Your task to perform on an android device: turn on data saver in the chrome app Image 0: 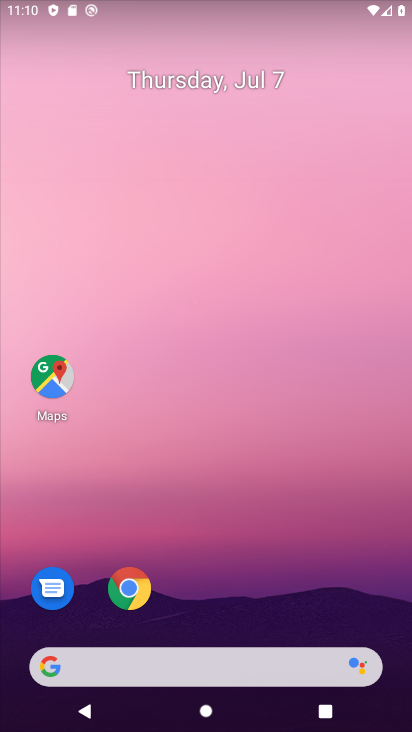
Step 0: drag from (200, 621) to (228, 124)
Your task to perform on an android device: turn on data saver in the chrome app Image 1: 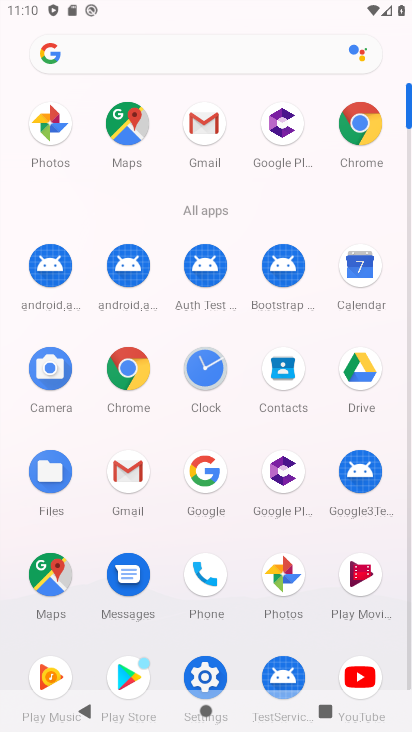
Step 1: click (360, 123)
Your task to perform on an android device: turn on data saver in the chrome app Image 2: 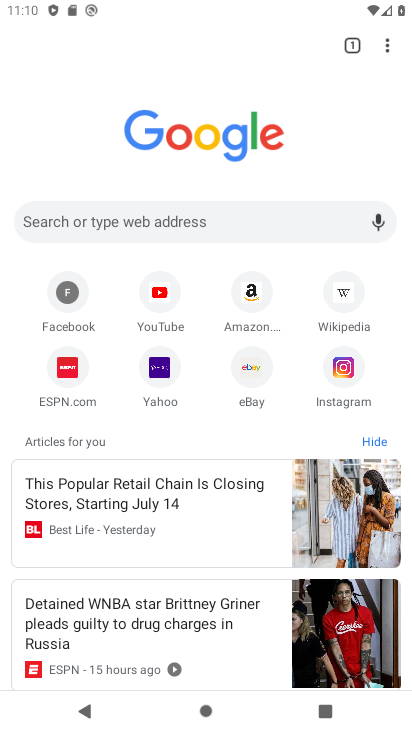
Step 2: click (383, 49)
Your task to perform on an android device: turn on data saver in the chrome app Image 3: 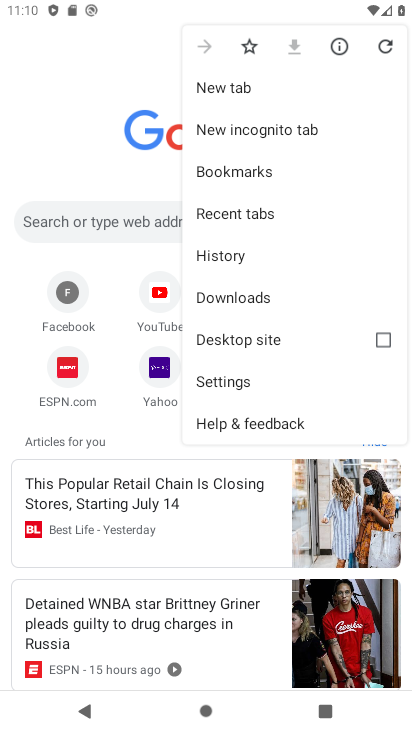
Step 3: click (241, 382)
Your task to perform on an android device: turn on data saver in the chrome app Image 4: 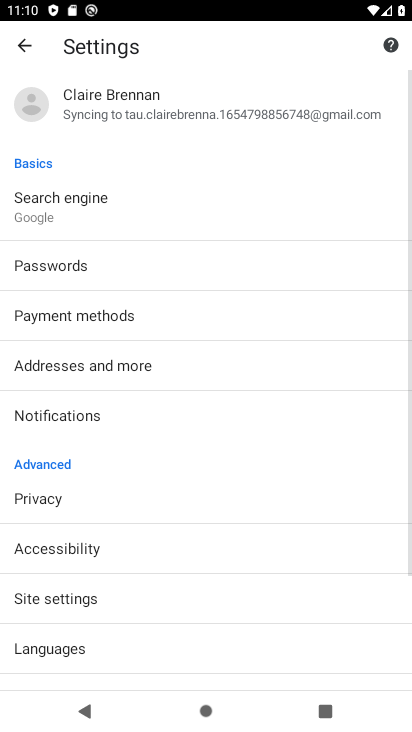
Step 4: drag from (145, 606) to (146, 252)
Your task to perform on an android device: turn on data saver in the chrome app Image 5: 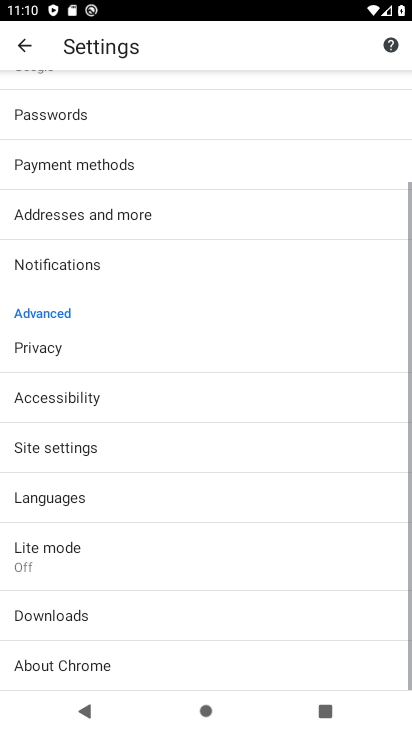
Step 5: click (45, 559)
Your task to perform on an android device: turn on data saver in the chrome app Image 6: 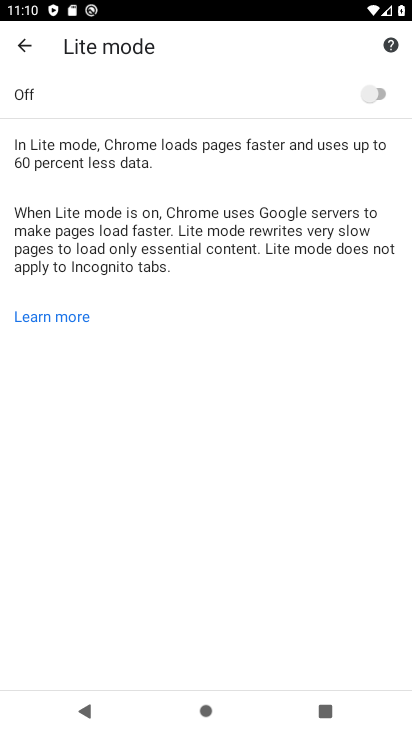
Step 6: click (372, 92)
Your task to perform on an android device: turn on data saver in the chrome app Image 7: 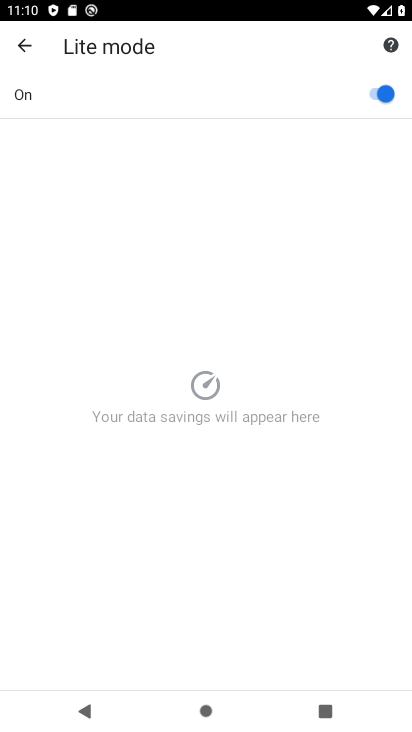
Step 7: task complete